Your task to perform on an android device: turn vacation reply on in the gmail app Image 0: 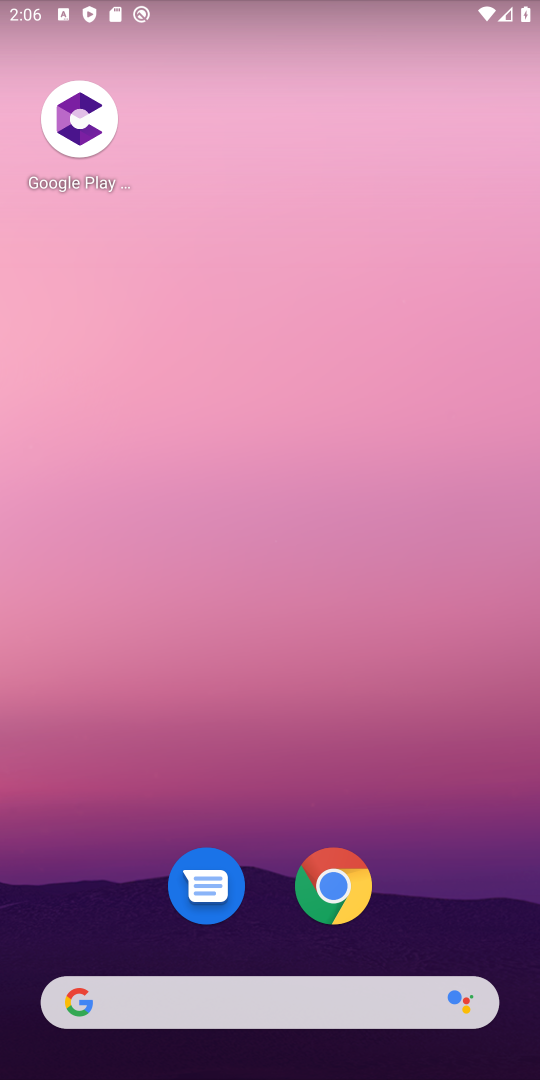
Step 0: drag from (411, 568) to (451, 4)
Your task to perform on an android device: turn vacation reply on in the gmail app Image 1: 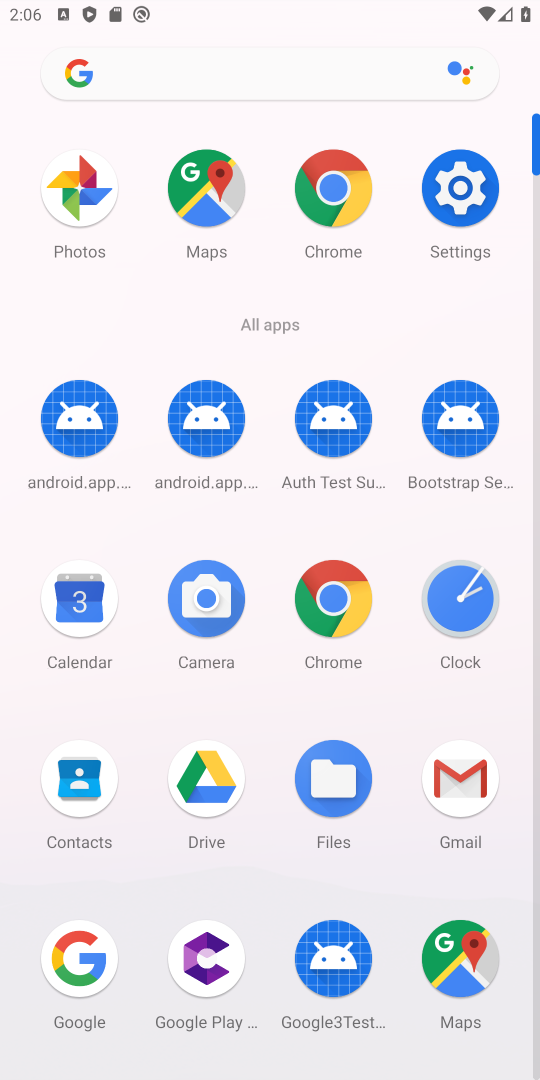
Step 1: click (451, 765)
Your task to perform on an android device: turn vacation reply on in the gmail app Image 2: 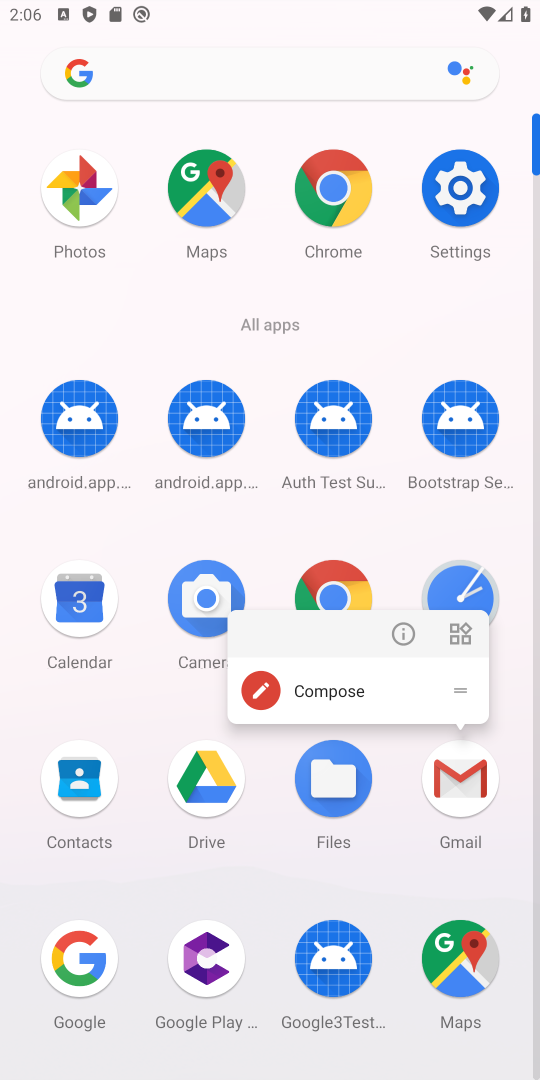
Step 2: click (451, 764)
Your task to perform on an android device: turn vacation reply on in the gmail app Image 3: 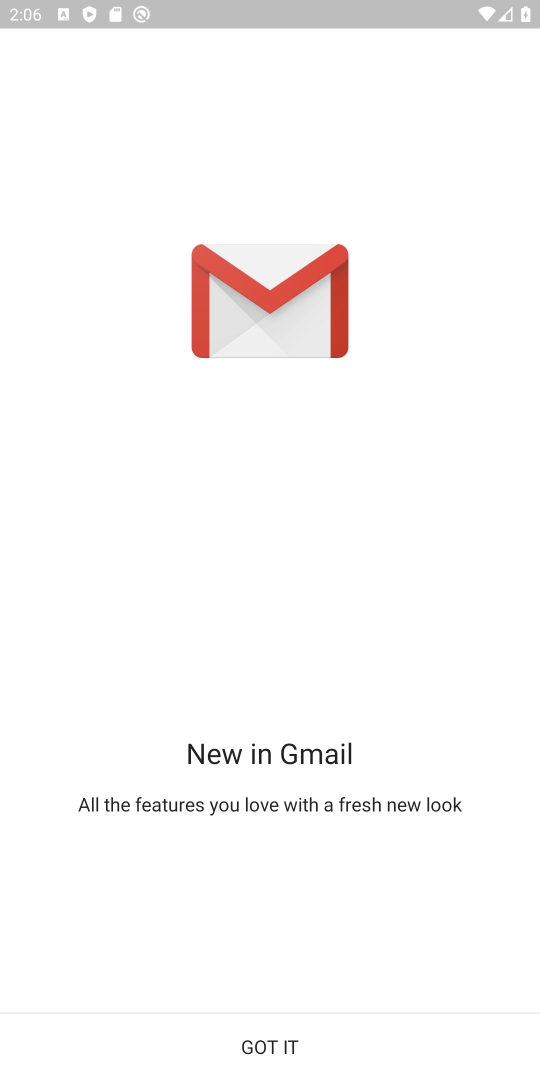
Step 3: click (403, 1023)
Your task to perform on an android device: turn vacation reply on in the gmail app Image 4: 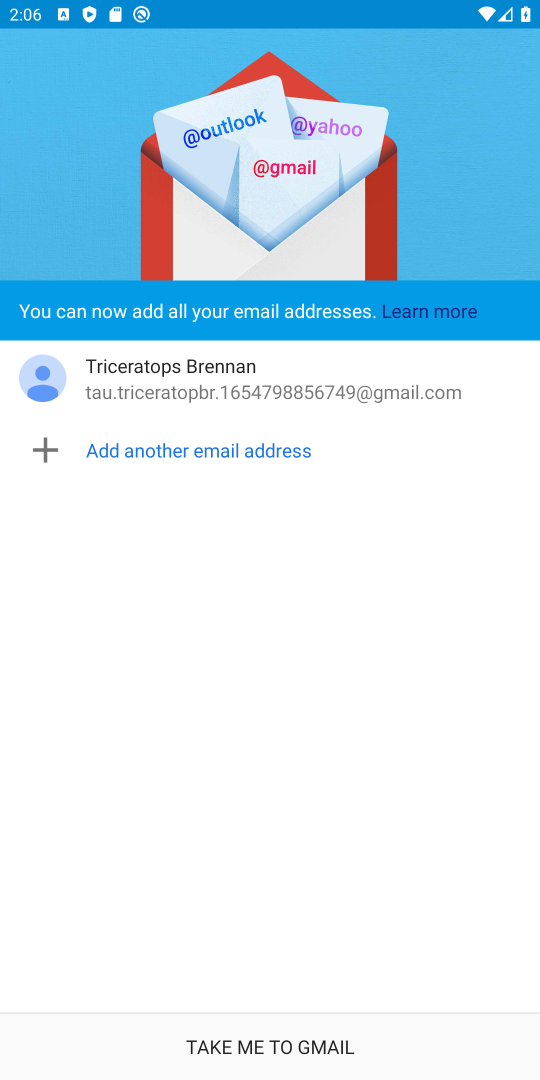
Step 4: click (396, 1054)
Your task to perform on an android device: turn vacation reply on in the gmail app Image 5: 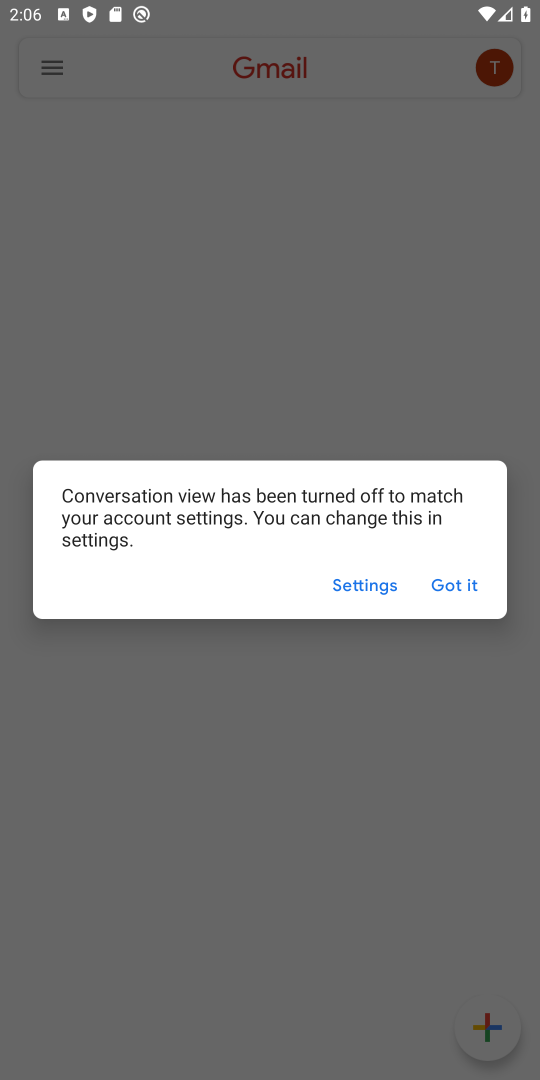
Step 5: click (465, 585)
Your task to perform on an android device: turn vacation reply on in the gmail app Image 6: 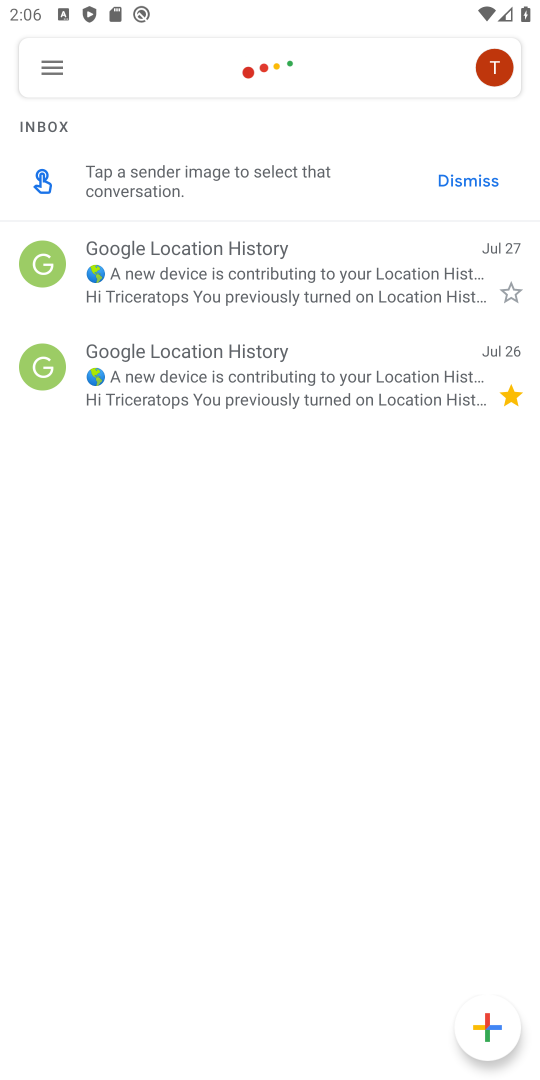
Step 6: click (73, 64)
Your task to perform on an android device: turn vacation reply on in the gmail app Image 7: 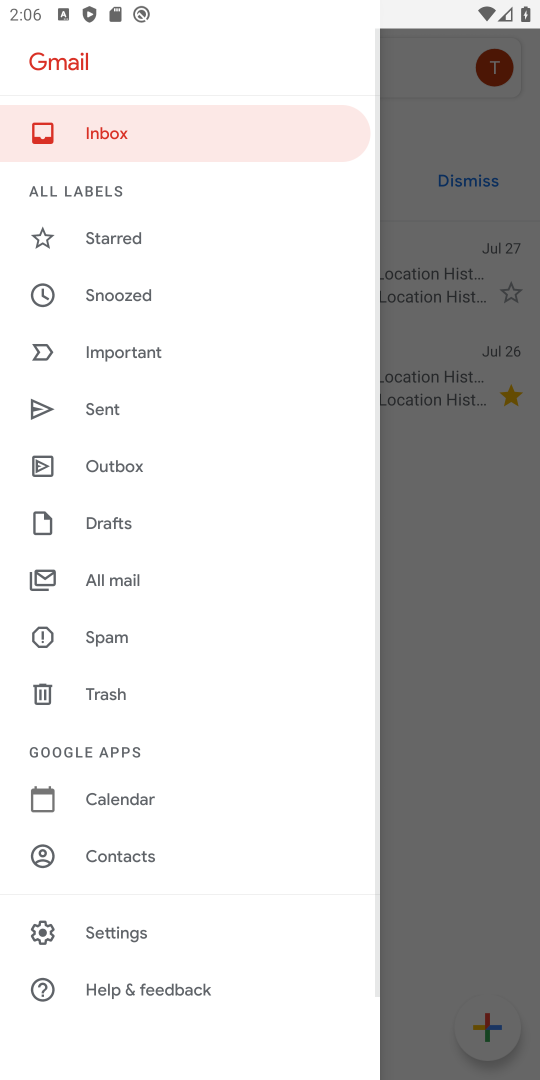
Step 7: click (136, 923)
Your task to perform on an android device: turn vacation reply on in the gmail app Image 8: 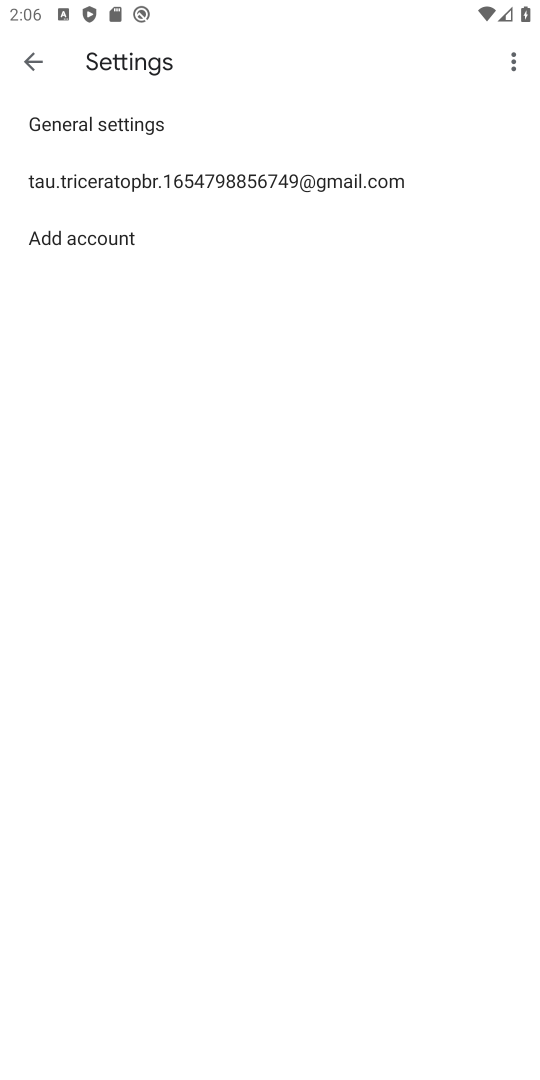
Step 8: click (232, 174)
Your task to perform on an android device: turn vacation reply on in the gmail app Image 9: 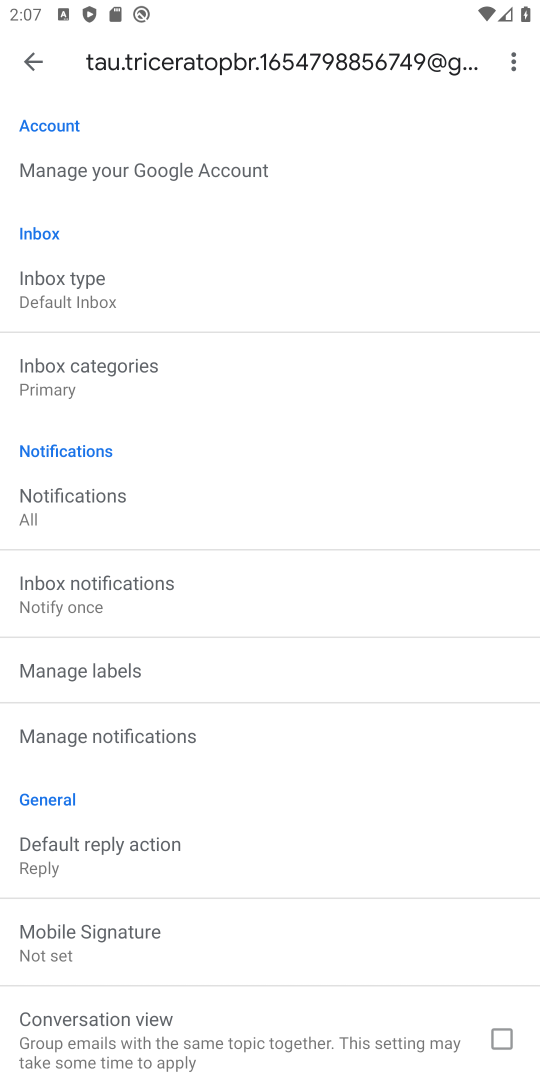
Step 9: drag from (162, 917) to (208, 136)
Your task to perform on an android device: turn vacation reply on in the gmail app Image 10: 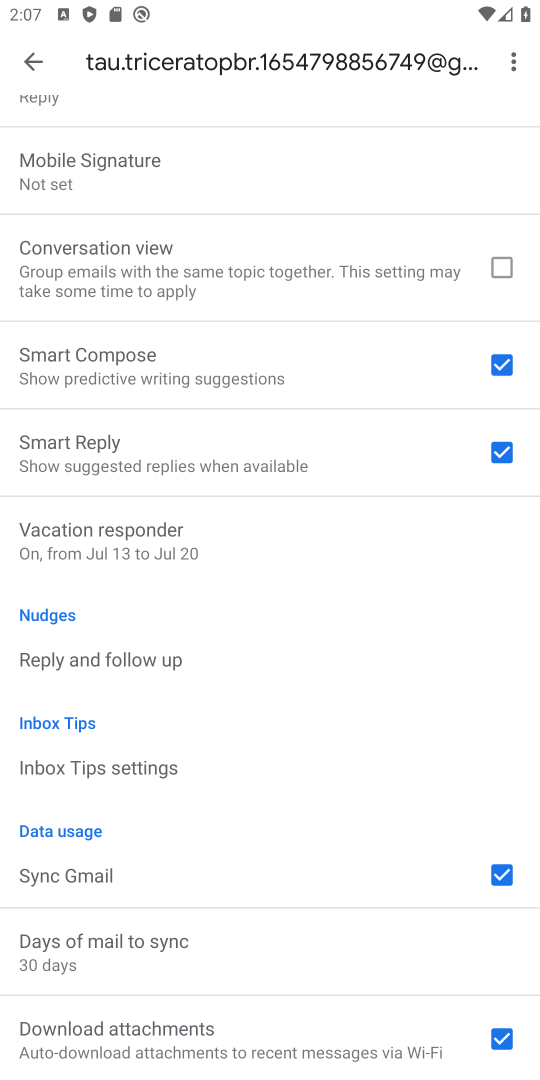
Step 10: click (169, 542)
Your task to perform on an android device: turn vacation reply on in the gmail app Image 11: 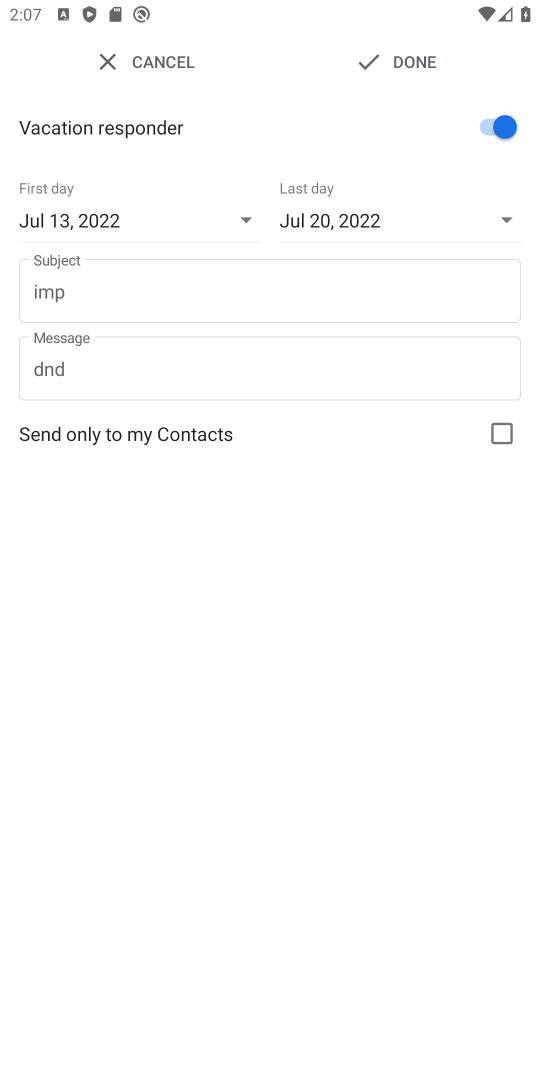
Step 11: click (407, 62)
Your task to perform on an android device: turn vacation reply on in the gmail app Image 12: 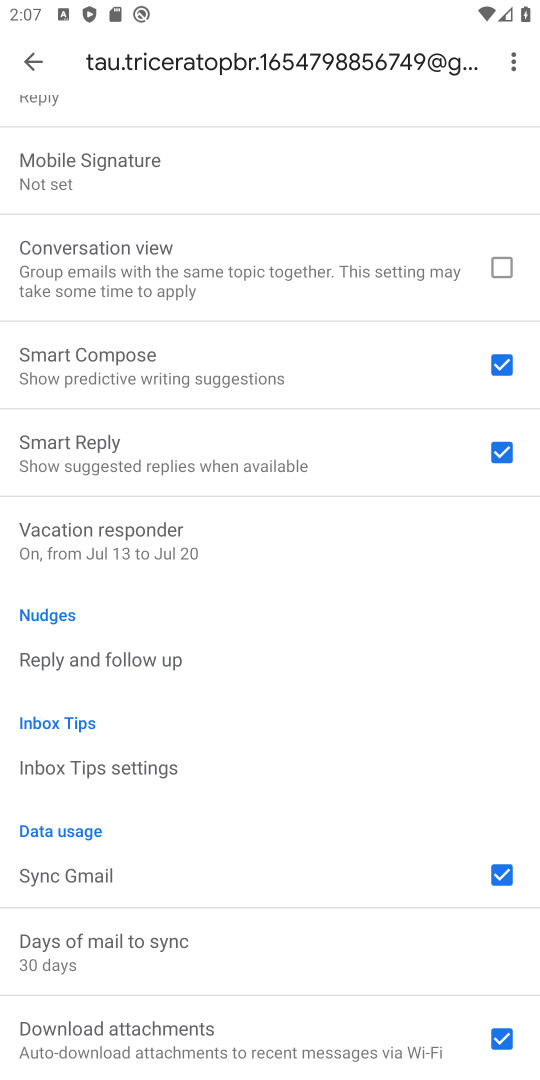
Step 12: task complete